Your task to perform on an android device: Show me productivity apps on the Play Store Image 0: 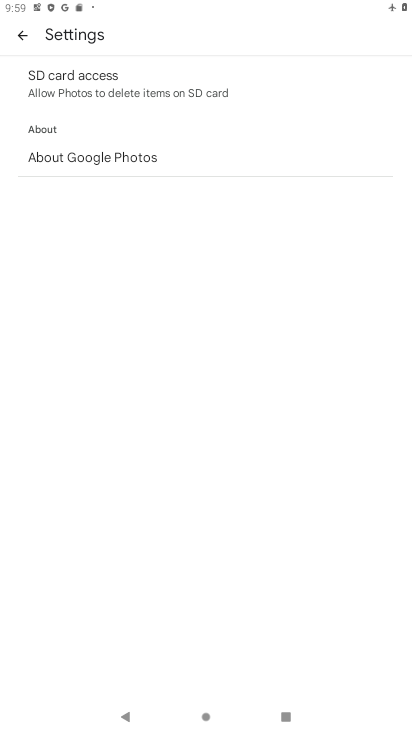
Step 0: press back button
Your task to perform on an android device: Show me productivity apps on the Play Store Image 1: 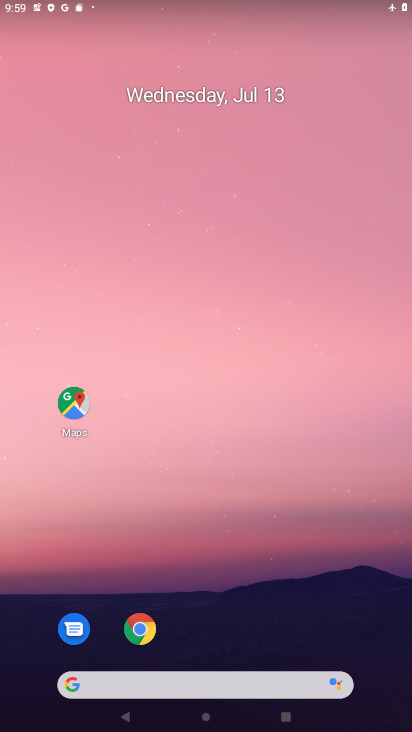
Step 1: drag from (280, 630) to (250, 139)
Your task to perform on an android device: Show me productivity apps on the Play Store Image 2: 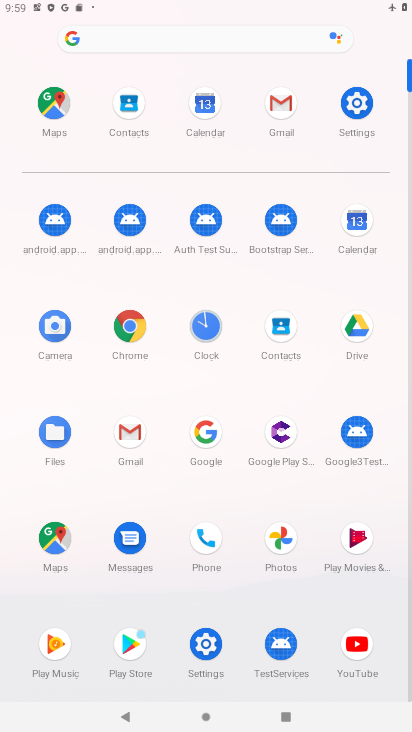
Step 2: click (133, 654)
Your task to perform on an android device: Show me productivity apps on the Play Store Image 3: 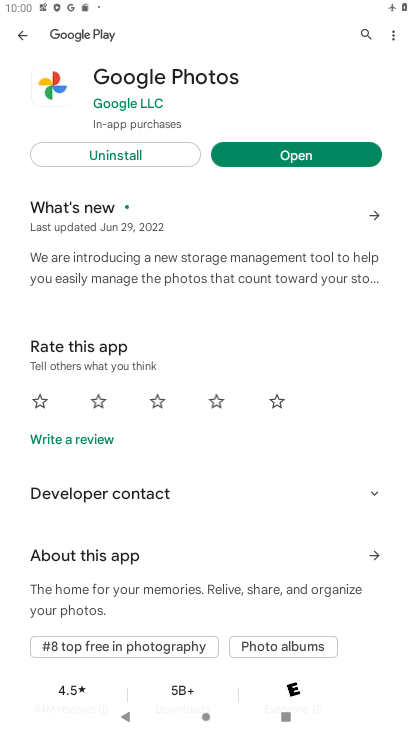
Step 3: click (24, 33)
Your task to perform on an android device: Show me productivity apps on the Play Store Image 4: 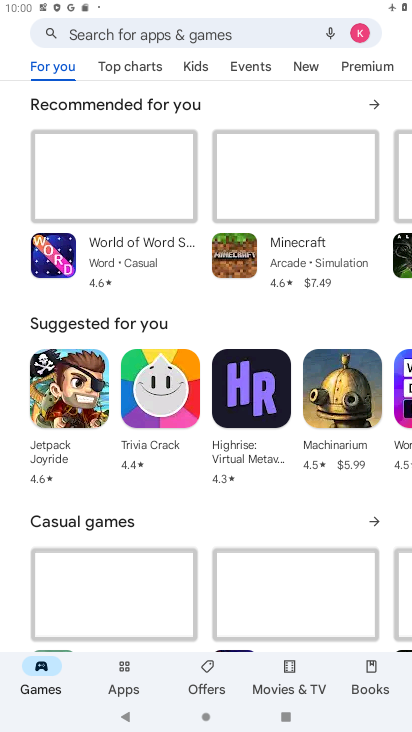
Step 4: click (115, 73)
Your task to perform on an android device: Show me productivity apps on the Play Store Image 5: 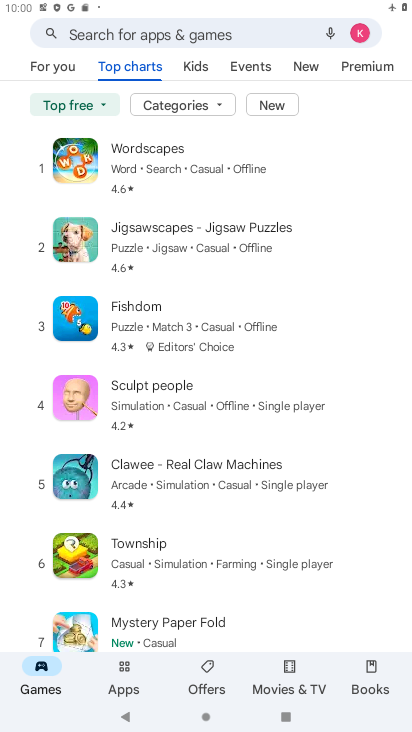
Step 5: click (214, 102)
Your task to perform on an android device: Show me productivity apps on the Play Store Image 6: 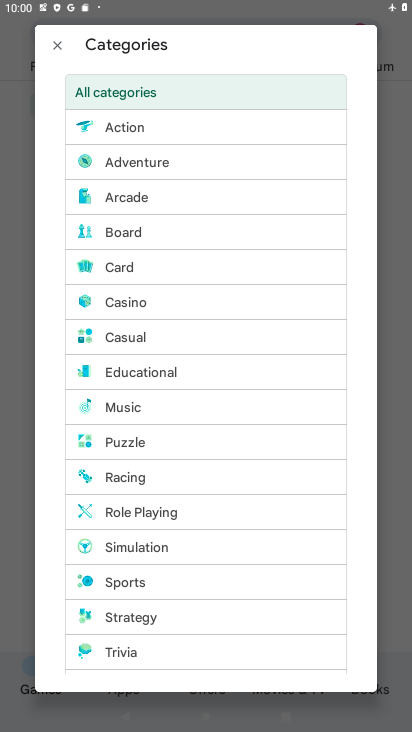
Step 6: task complete